Your task to perform on an android device: Open sound settings Image 0: 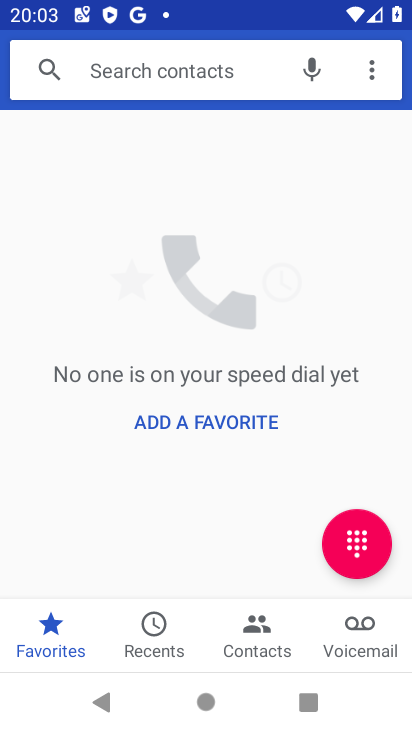
Step 0: press home button
Your task to perform on an android device: Open sound settings Image 1: 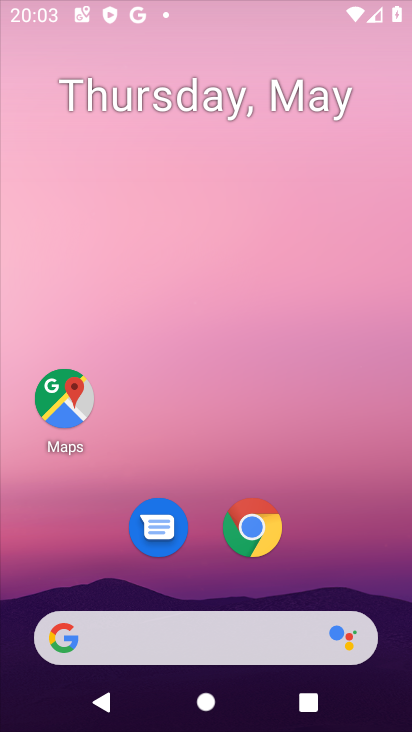
Step 1: drag from (19, 579) to (261, 126)
Your task to perform on an android device: Open sound settings Image 2: 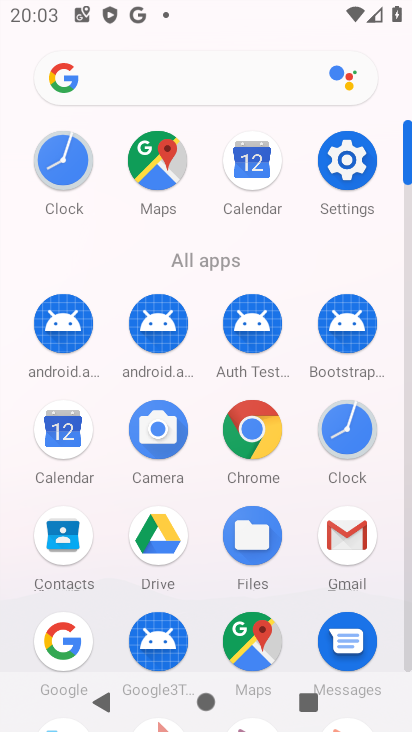
Step 2: click (341, 170)
Your task to perform on an android device: Open sound settings Image 3: 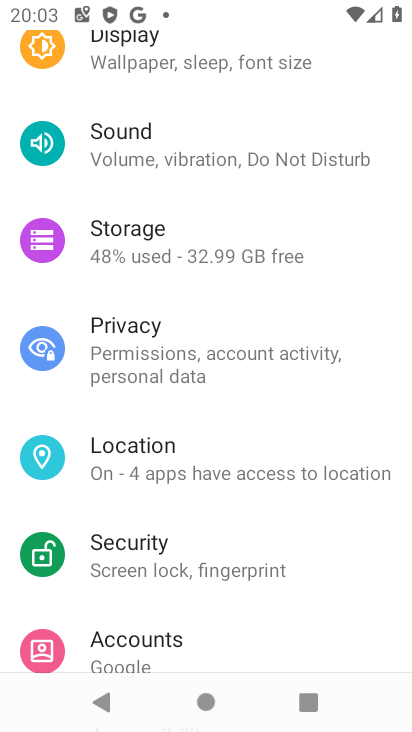
Step 3: click (109, 155)
Your task to perform on an android device: Open sound settings Image 4: 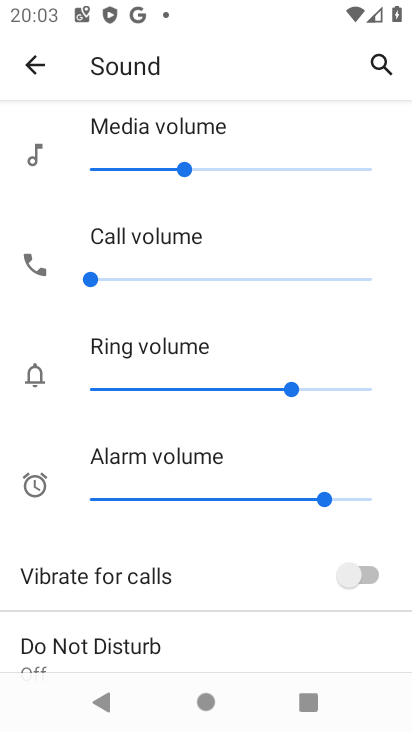
Step 4: task complete